Your task to perform on an android device: Open Google Maps and go to "Timeline" Image 0: 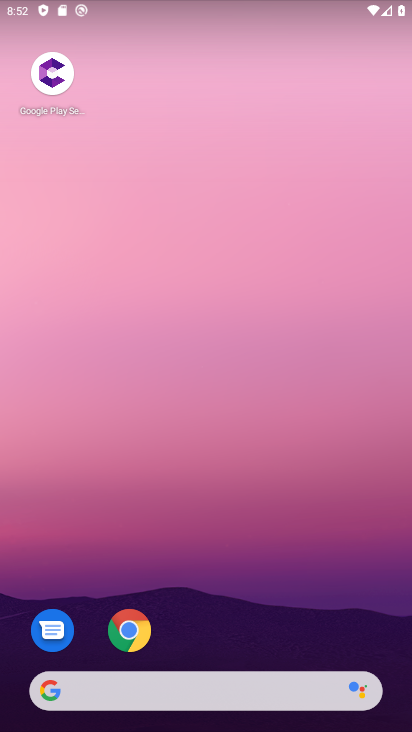
Step 0: drag from (224, 588) to (272, 0)
Your task to perform on an android device: Open Google Maps and go to "Timeline" Image 1: 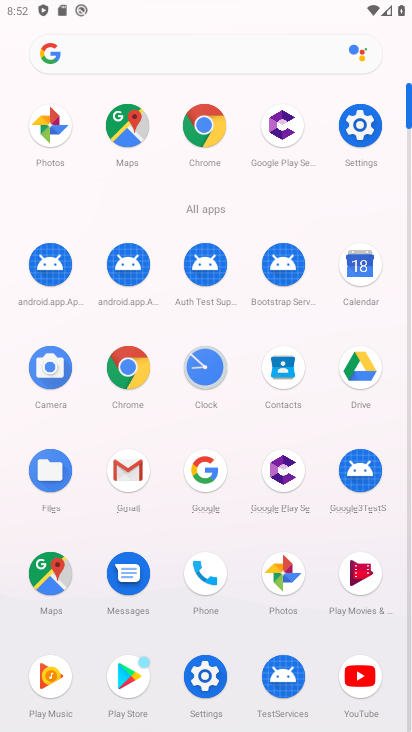
Step 1: click (130, 137)
Your task to perform on an android device: Open Google Maps and go to "Timeline" Image 2: 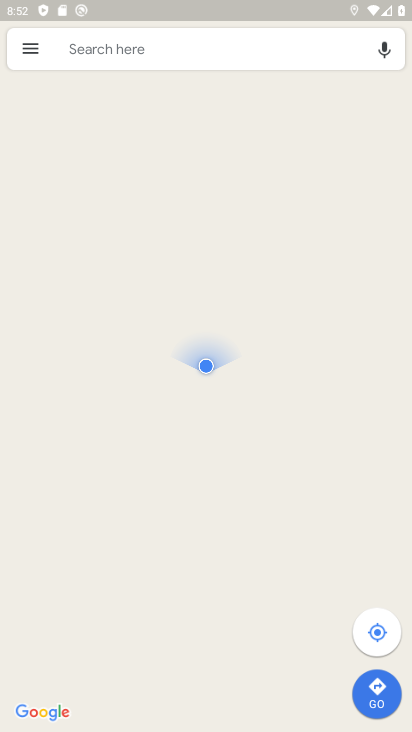
Step 2: click (31, 46)
Your task to perform on an android device: Open Google Maps and go to "Timeline" Image 3: 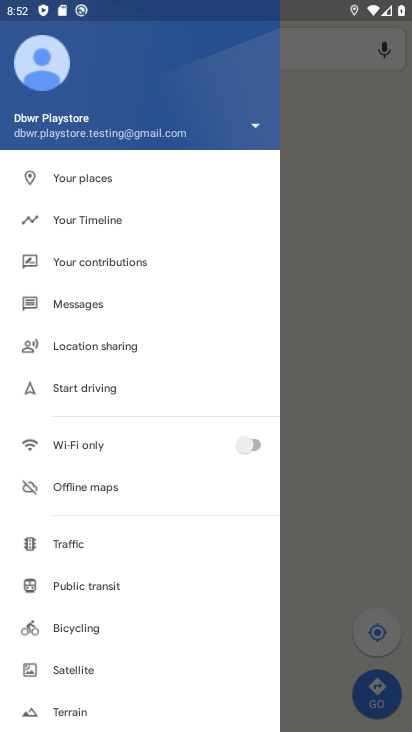
Step 3: click (63, 220)
Your task to perform on an android device: Open Google Maps and go to "Timeline" Image 4: 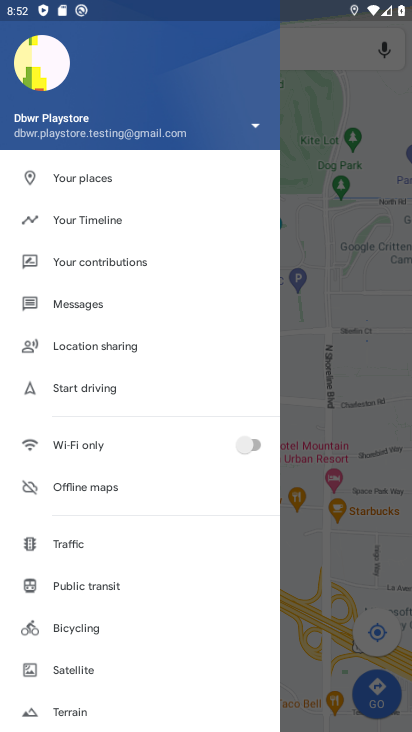
Step 4: click (63, 220)
Your task to perform on an android device: Open Google Maps and go to "Timeline" Image 5: 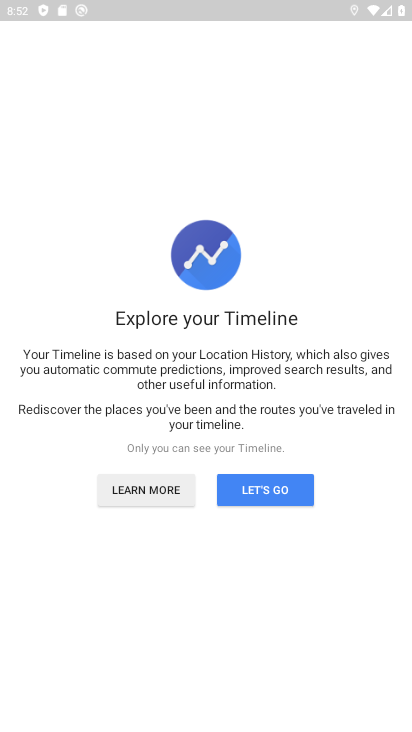
Step 5: click (268, 481)
Your task to perform on an android device: Open Google Maps and go to "Timeline" Image 6: 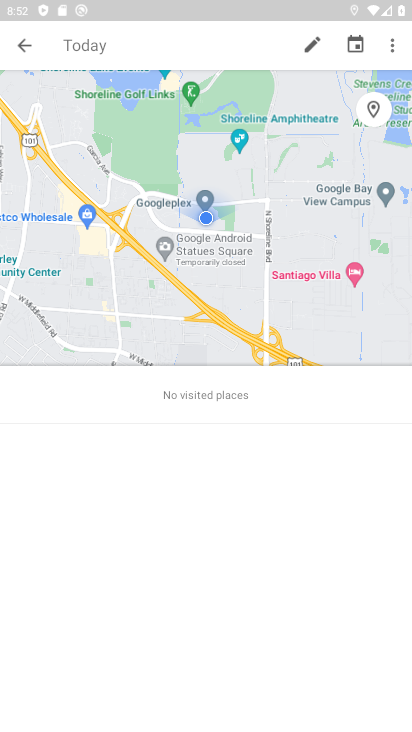
Step 6: task complete